Your task to perform on an android device: Toggle the flashlight Image 0: 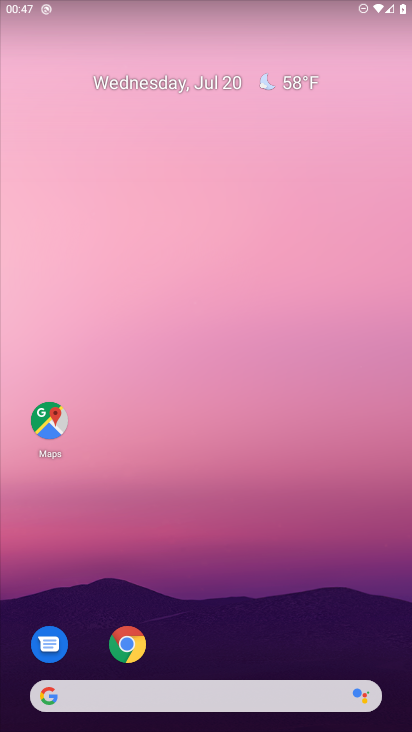
Step 0: drag from (208, 541) to (204, 722)
Your task to perform on an android device: Toggle the flashlight Image 1: 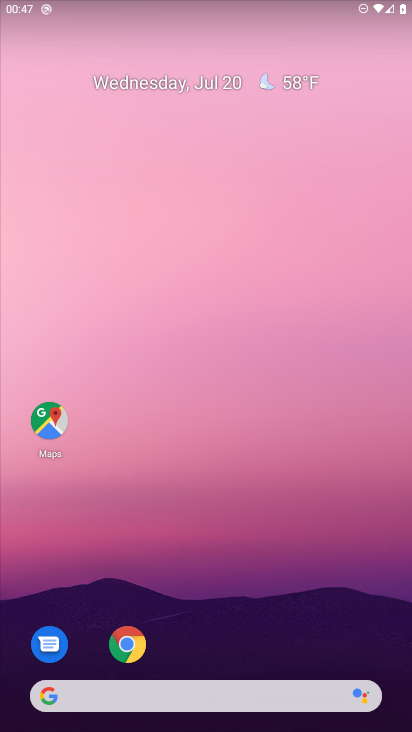
Step 1: task complete